Your task to perform on an android device: delete location history Image 0: 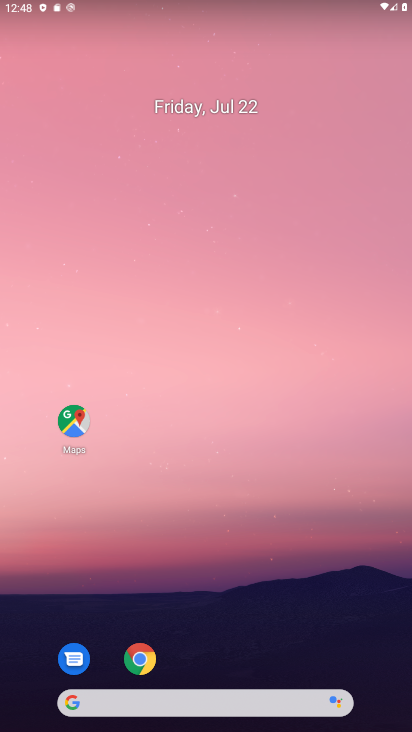
Step 0: drag from (257, 665) to (341, 5)
Your task to perform on an android device: delete location history Image 1: 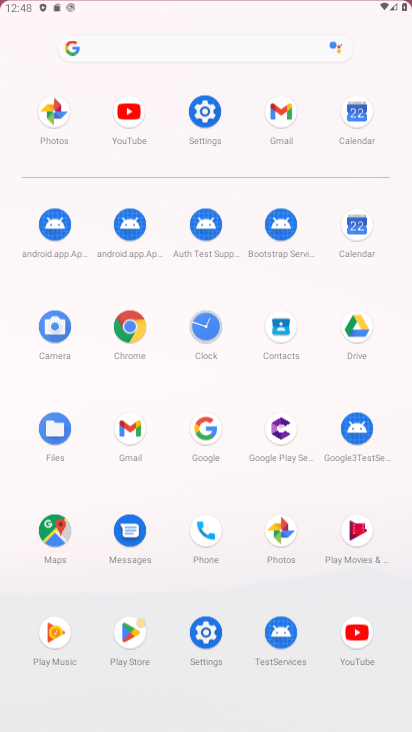
Step 1: task complete